Your task to perform on an android device: turn on notifications settings in the gmail app Image 0: 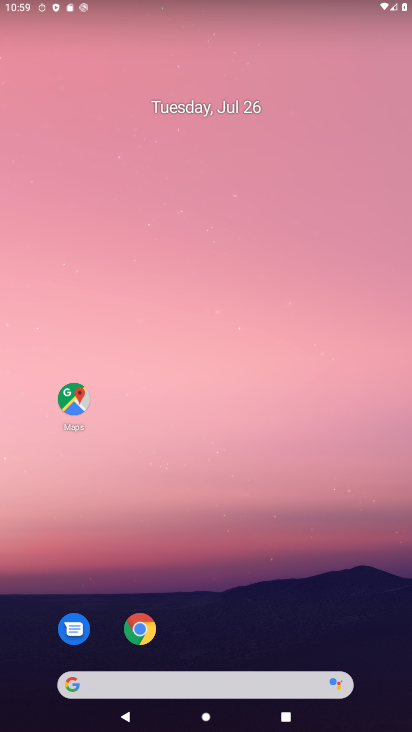
Step 0: drag from (349, 637) to (119, 32)
Your task to perform on an android device: turn on notifications settings in the gmail app Image 1: 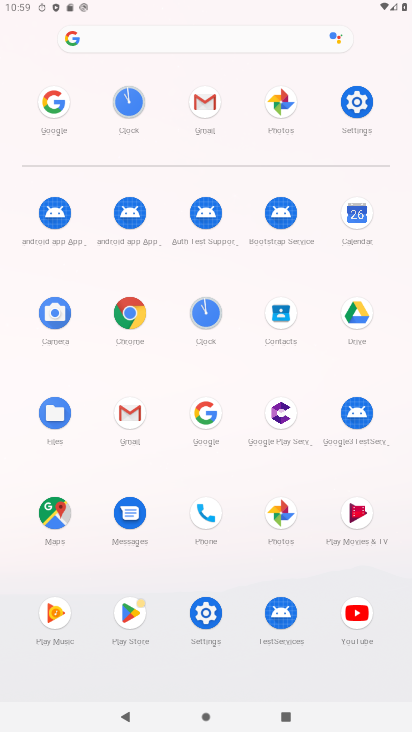
Step 1: click (132, 402)
Your task to perform on an android device: turn on notifications settings in the gmail app Image 2: 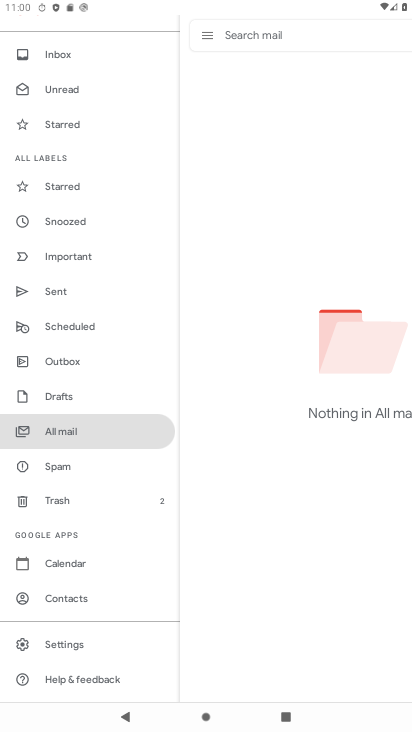
Step 2: click (80, 638)
Your task to perform on an android device: turn on notifications settings in the gmail app Image 3: 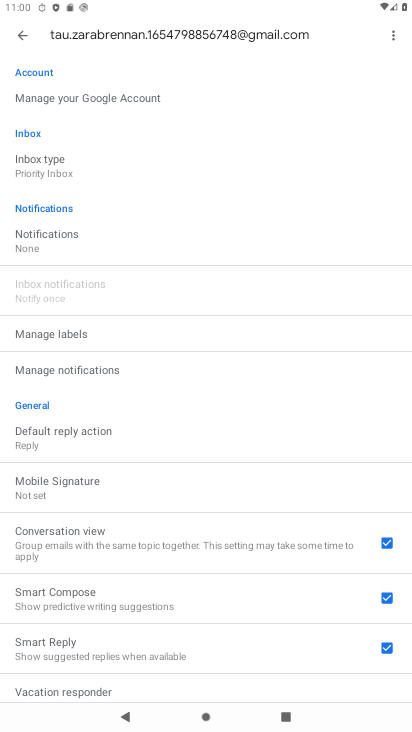
Step 3: click (58, 249)
Your task to perform on an android device: turn on notifications settings in the gmail app Image 4: 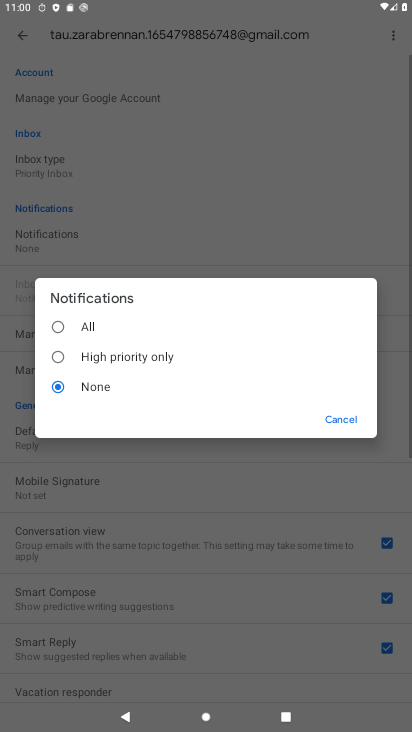
Step 4: click (77, 333)
Your task to perform on an android device: turn on notifications settings in the gmail app Image 5: 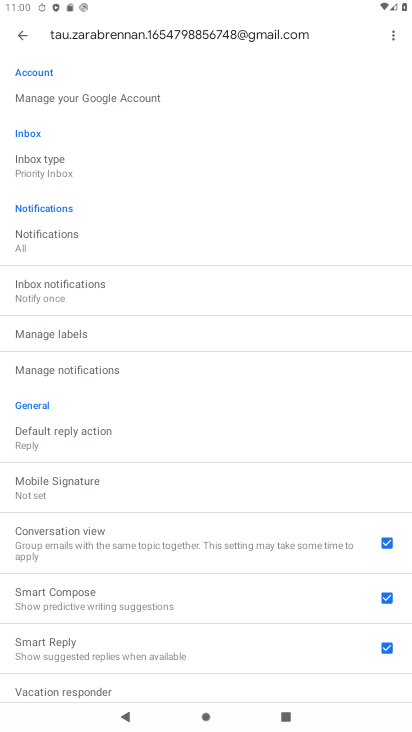
Step 5: task complete